Your task to perform on an android device: toggle pop-ups in chrome Image 0: 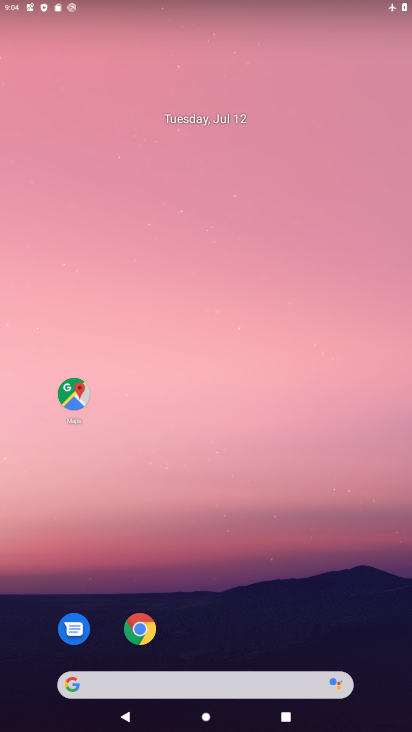
Step 0: drag from (222, 602) to (211, 226)
Your task to perform on an android device: toggle pop-ups in chrome Image 1: 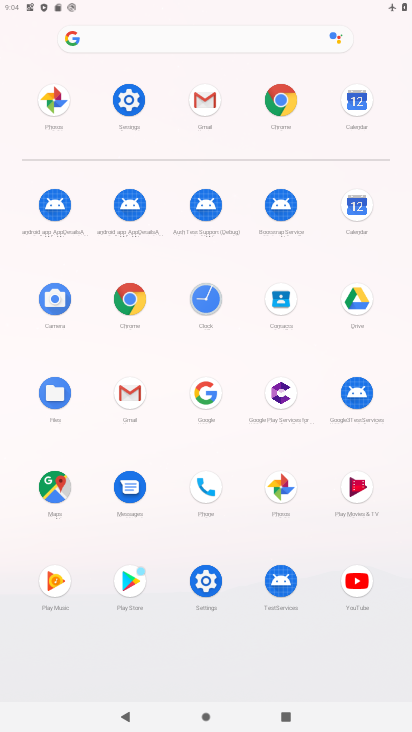
Step 1: click (276, 104)
Your task to perform on an android device: toggle pop-ups in chrome Image 2: 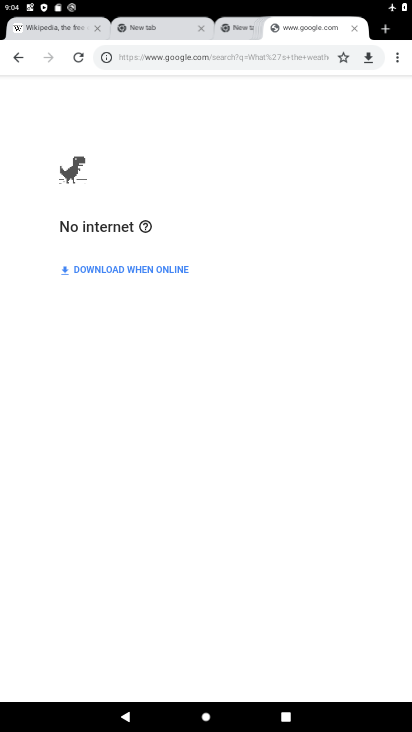
Step 2: click (404, 53)
Your task to perform on an android device: toggle pop-ups in chrome Image 3: 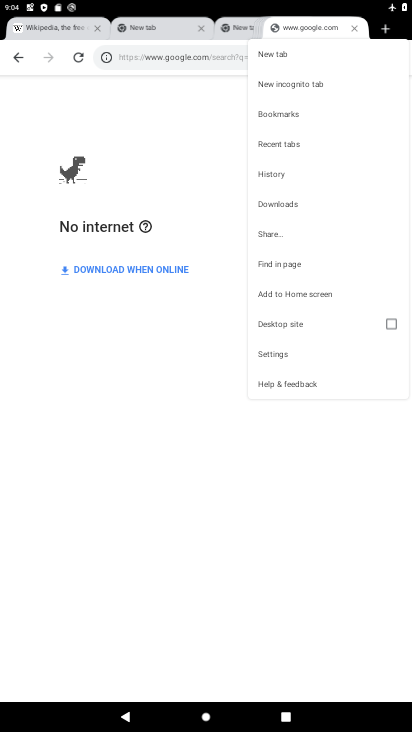
Step 3: click (283, 356)
Your task to perform on an android device: toggle pop-ups in chrome Image 4: 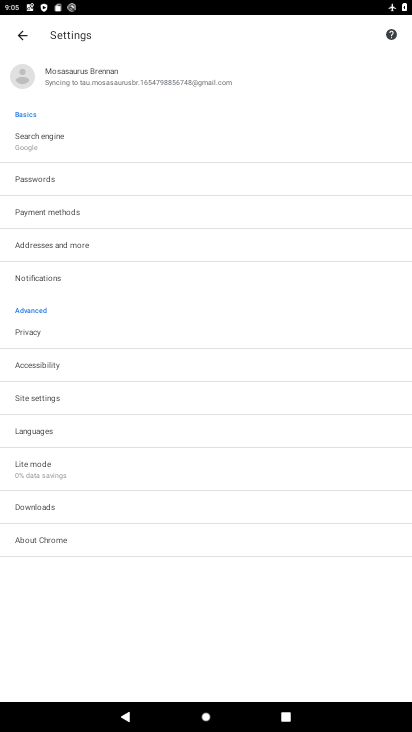
Step 4: click (102, 399)
Your task to perform on an android device: toggle pop-ups in chrome Image 5: 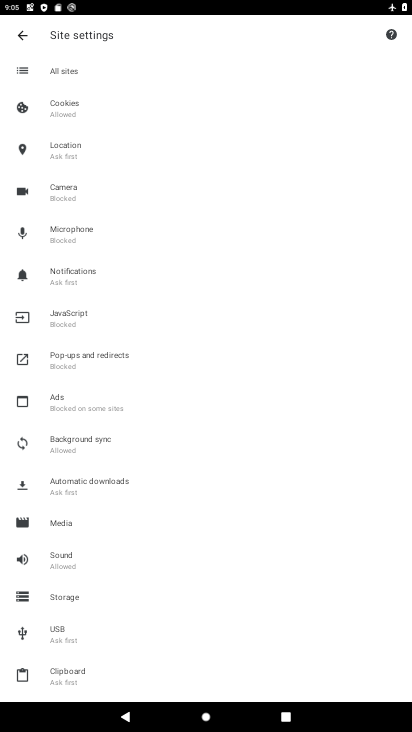
Step 5: click (132, 365)
Your task to perform on an android device: toggle pop-ups in chrome Image 6: 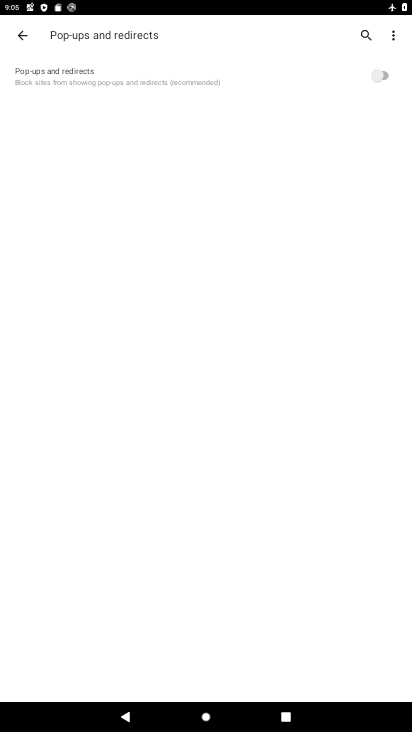
Step 6: click (372, 82)
Your task to perform on an android device: toggle pop-ups in chrome Image 7: 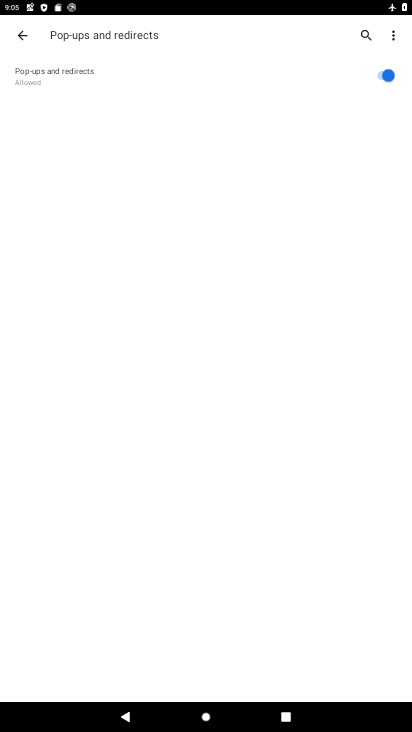
Step 7: task complete